Your task to perform on an android device: Find coffee shops on Maps Image 0: 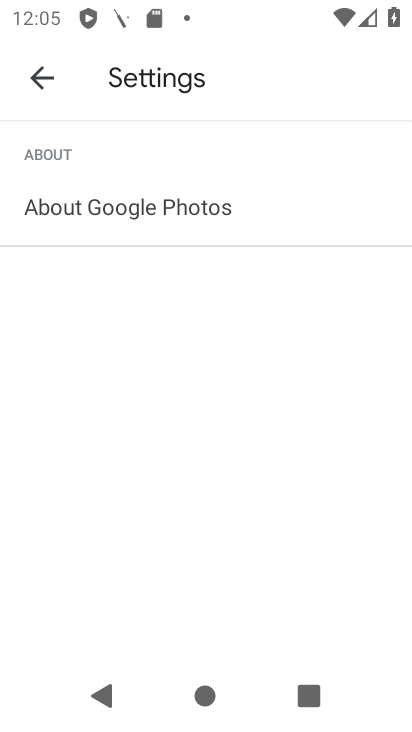
Step 0: press home button
Your task to perform on an android device: Find coffee shops on Maps Image 1: 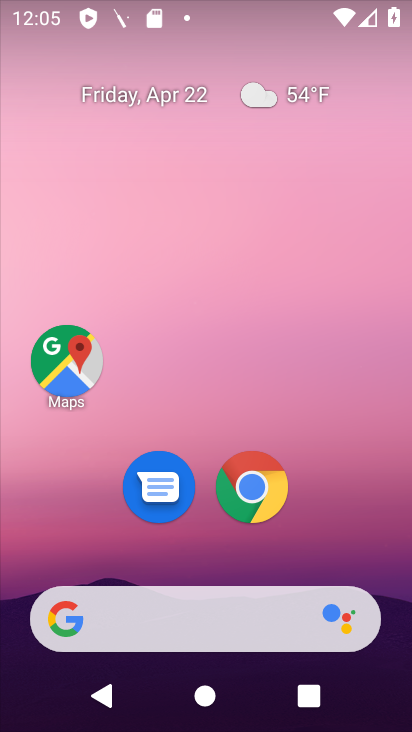
Step 1: click (67, 353)
Your task to perform on an android device: Find coffee shops on Maps Image 2: 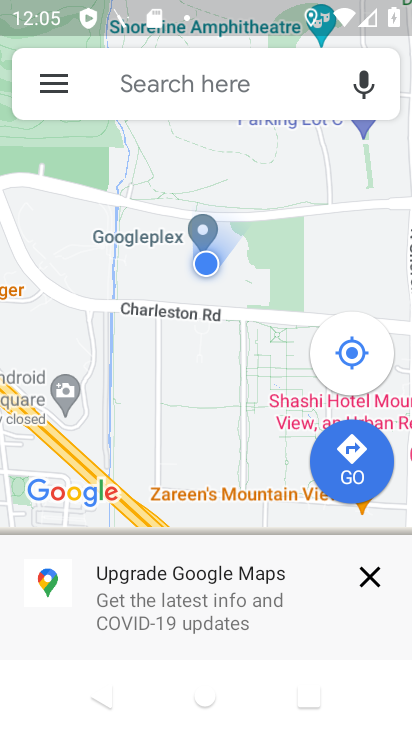
Step 2: click (177, 70)
Your task to perform on an android device: Find coffee shops on Maps Image 3: 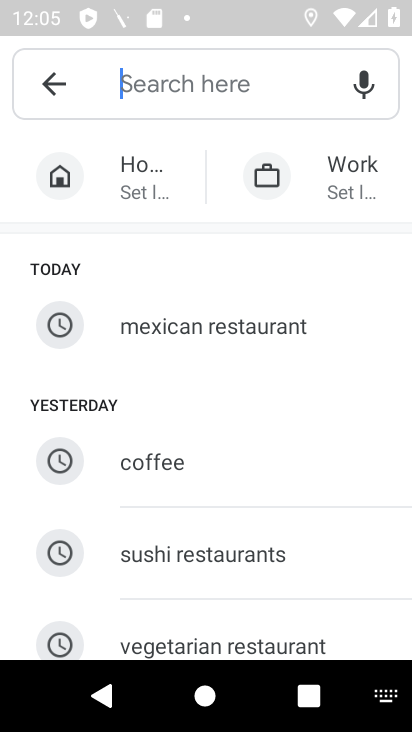
Step 3: type "coffee  shops"
Your task to perform on an android device: Find coffee shops on Maps Image 4: 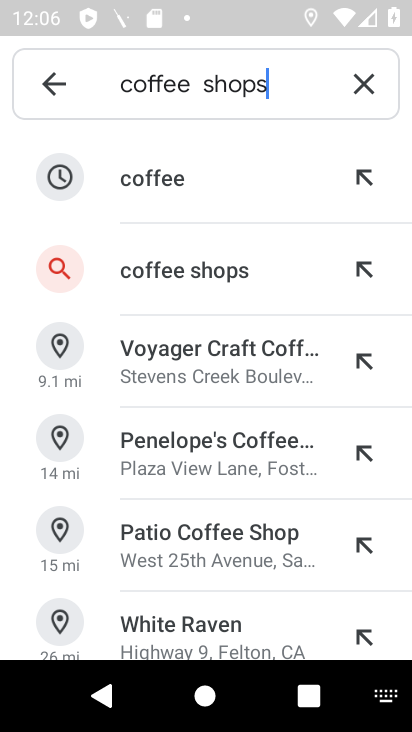
Step 4: task complete